Your task to perform on an android device: open a new tab in the chrome app Image 0: 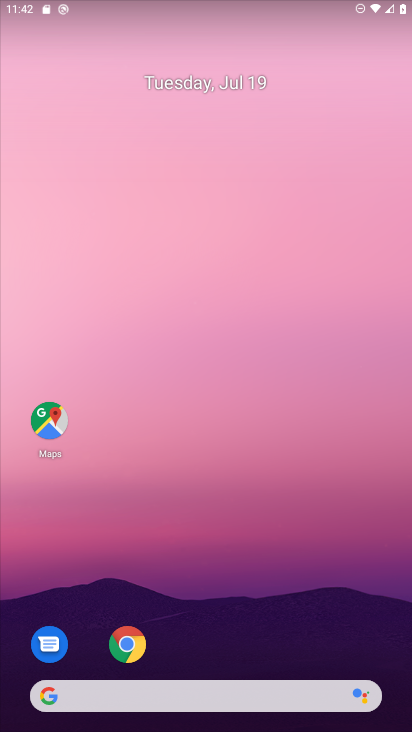
Step 0: click (147, 640)
Your task to perform on an android device: open a new tab in the chrome app Image 1: 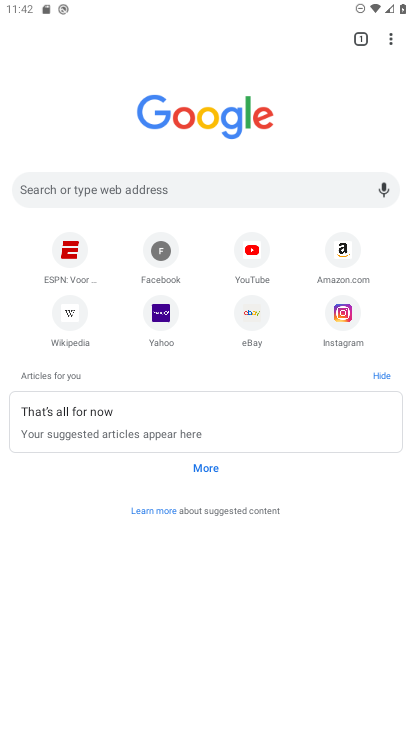
Step 1: click (49, 186)
Your task to perform on an android device: open a new tab in the chrome app Image 2: 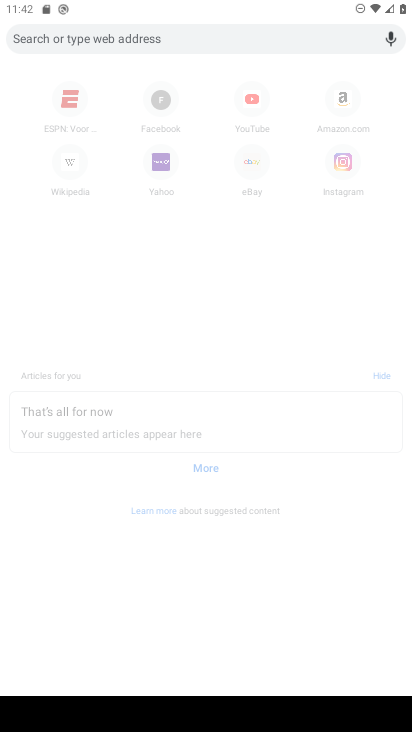
Step 2: task complete